Your task to perform on an android device: toggle javascript in the chrome app Image 0: 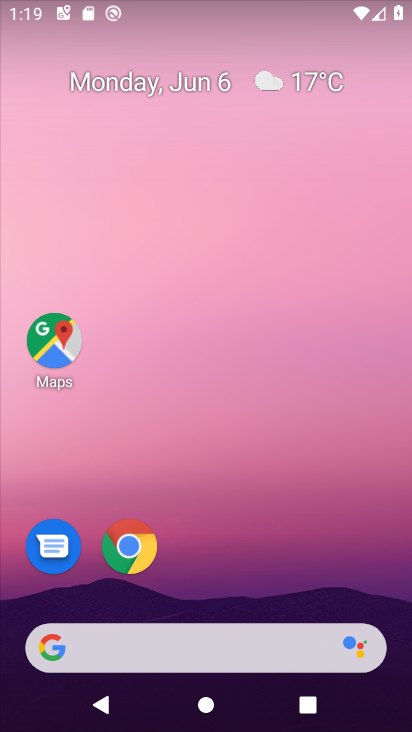
Step 0: click (132, 550)
Your task to perform on an android device: toggle javascript in the chrome app Image 1: 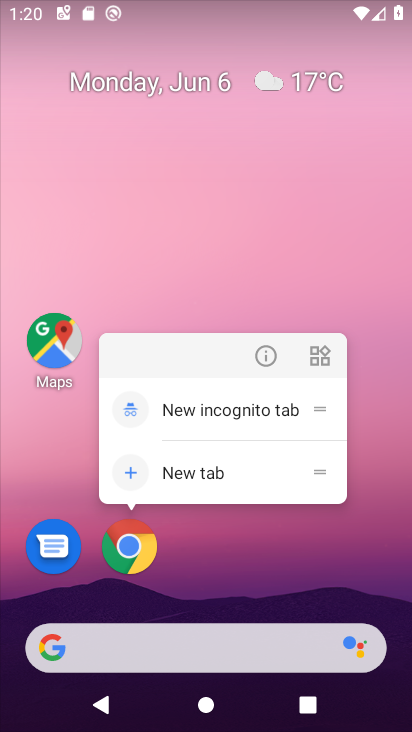
Step 1: click (132, 550)
Your task to perform on an android device: toggle javascript in the chrome app Image 2: 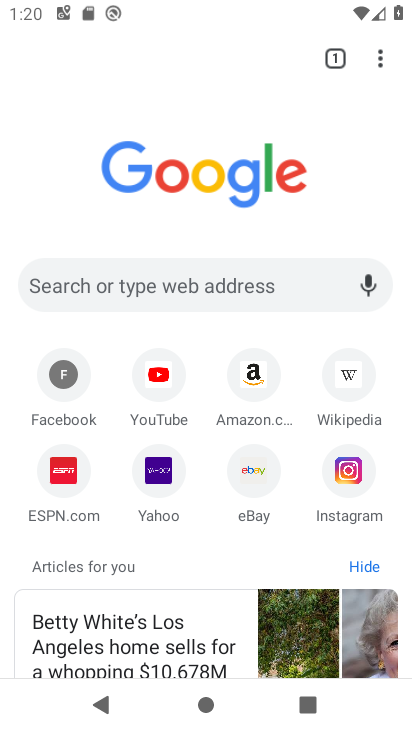
Step 2: drag from (383, 51) to (197, 492)
Your task to perform on an android device: toggle javascript in the chrome app Image 3: 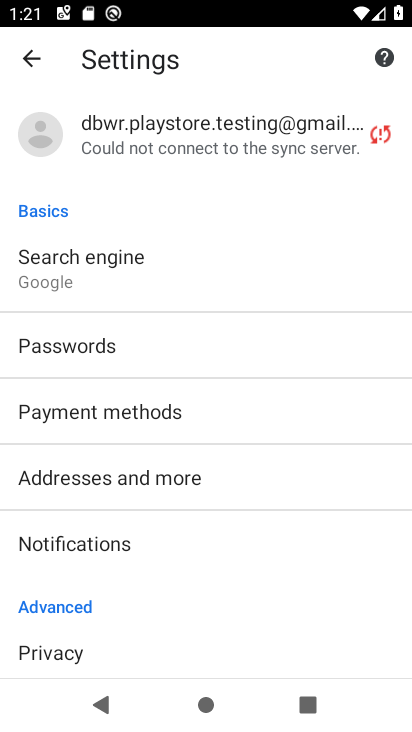
Step 3: drag from (190, 590) to (173, 136)
Your task to perform on an android device: toggle javascript in the chrome app Image 4: 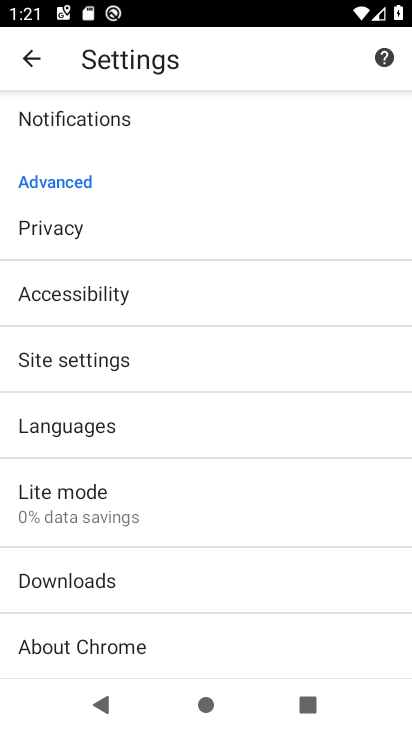
Step 4: click (87, 370)
Your task to perform on an android device: toggle javascript in the chrome app Image 5: 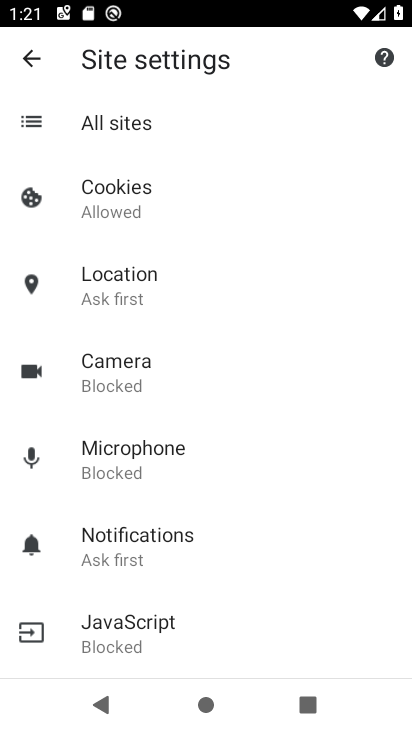
Step 5: click (125, 623)
Your task to perform on an android device: toggle javascript in the chrome app Image 6: 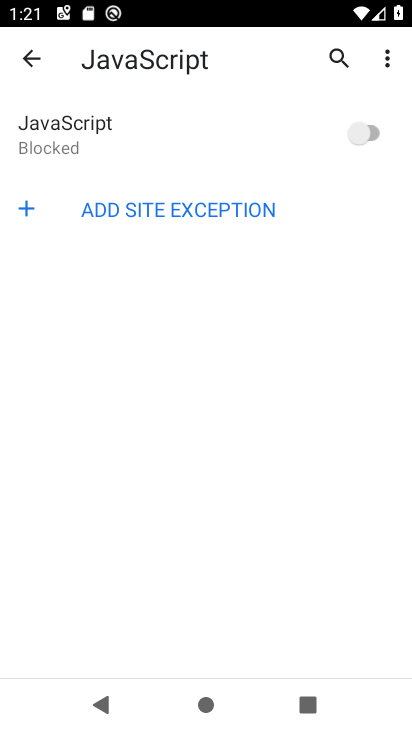
Step 6: click (367, 130)
Your task to perform on an android device: toggle javascript in the chrome app Image 7: 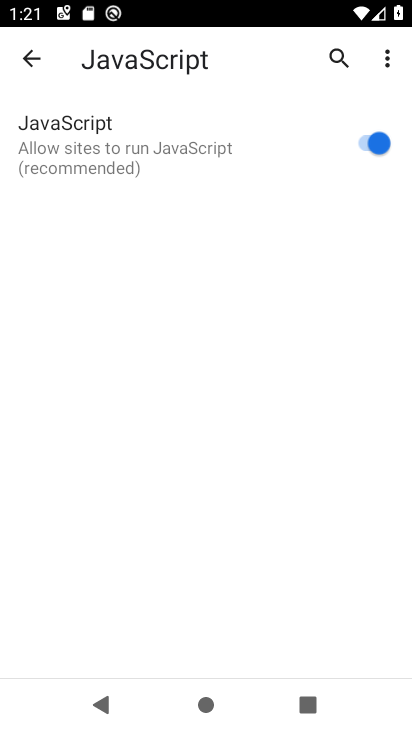
Step 7: task complete